Your task to perform on an android device: What's the weather going to be tomorrow? Image 0: 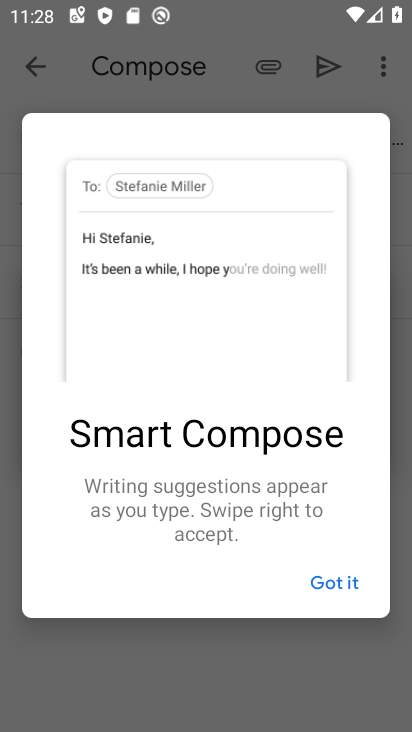
Step 0: press home button
Your task to perform on an android device: What's the weather going to be tomorrow? Image 1: 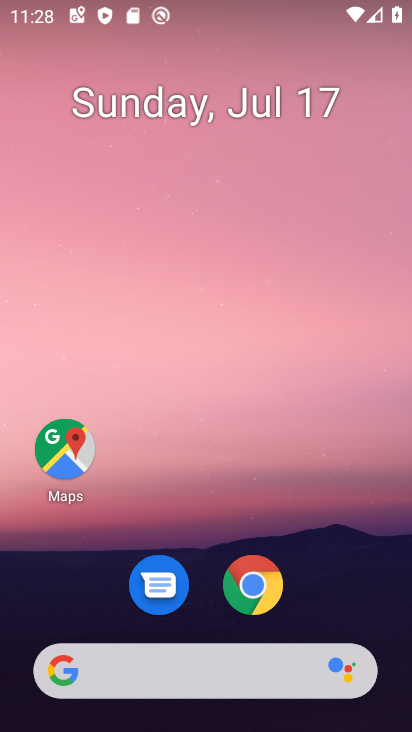
Step 1: click (237, 674)
Your task to perform on an android device: What's the weather going to be tomorrow? Image 2: 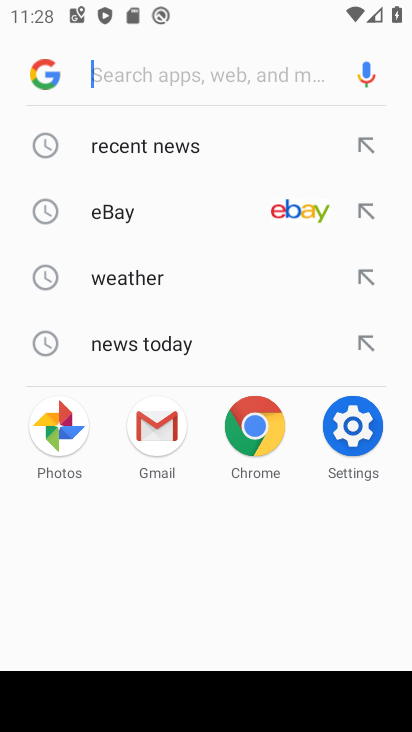
Step 2: click (133, 273)
Your task to perform on an android device: What's the weather going to be tomorrow? Image 3: 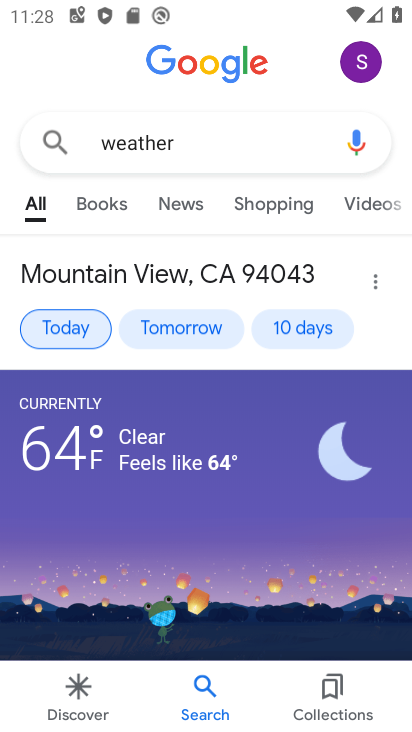
Step 3: click (171, 309)
Your task to perform on an android device: What's the weather going to be tomorrow? Image 4: 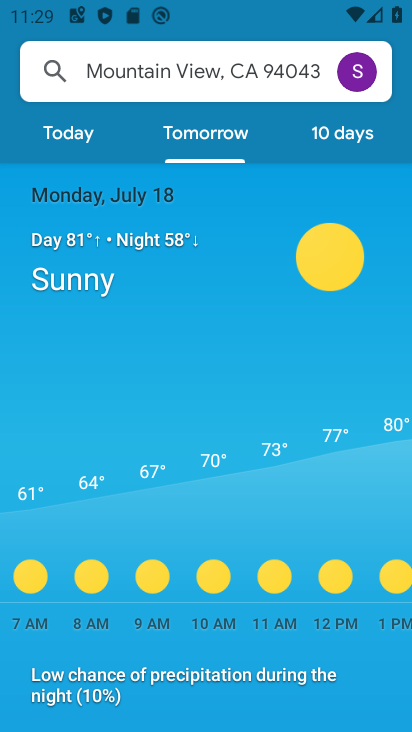
Step 4: drag from (204, 466) to (239, 108)
Your task to perform on an android device: What's the weather going to be tomorrow? Image 5: 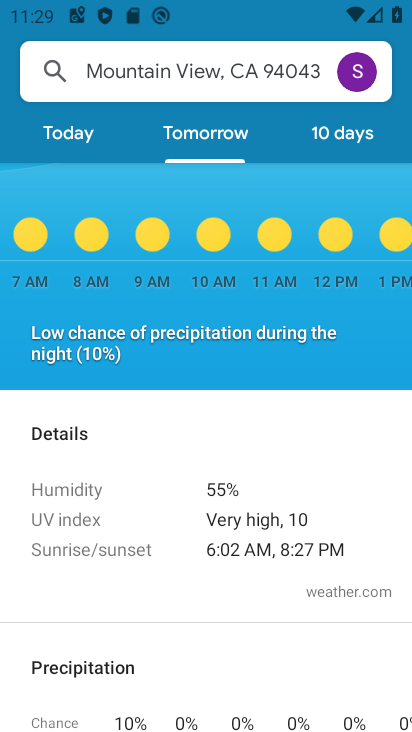
Step 5: drag from (216, 504) to (245, 154)
Your task to perform on an android device: What's the weather going to be tomorrow? Image 6: 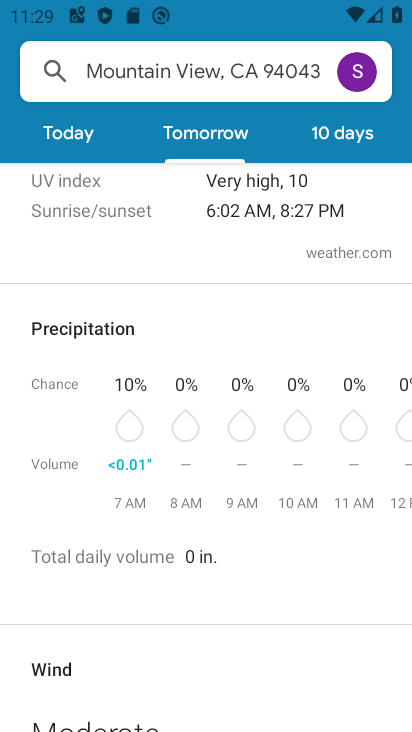
Step 6: drag from (309, 445) to (22, 405)
Your task to perform on an android device: What's the weather going to be tomorrow? Image 7: 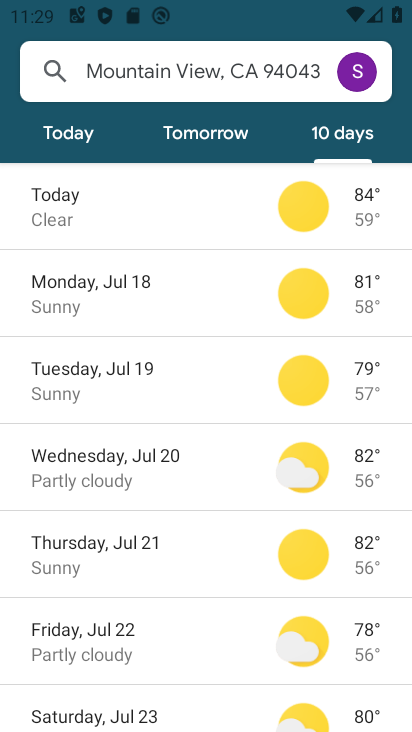
Step 7: drag from (108, 435) to (406, 591)
Your task to perform on an android device: What's the weather going to be tomorrow? Image 8: 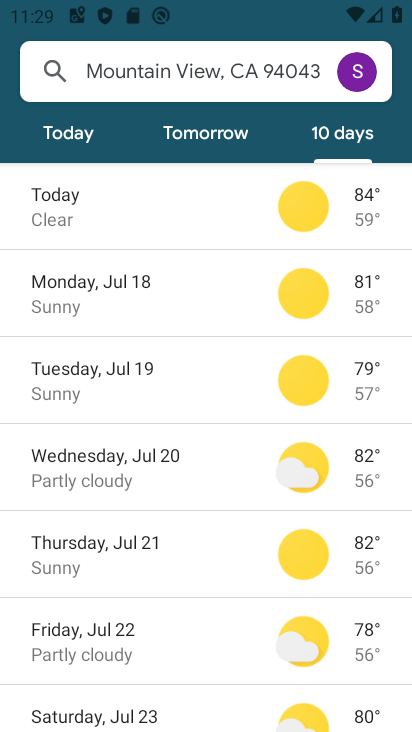
Step 8: drag from (88, 406) to (321, 477)
Your task to perform on an android device: What's the weather going to be tomorrow? Image 9: 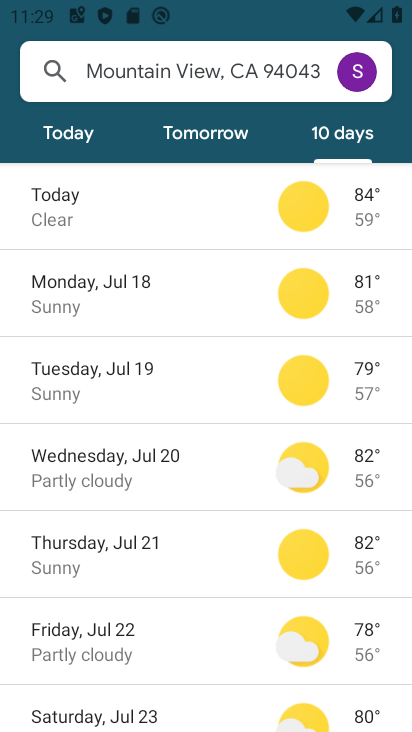
Step 9: click (238, 300)
Your task to perform on an android device: What's the weather going to be tomorrow? Image 10: 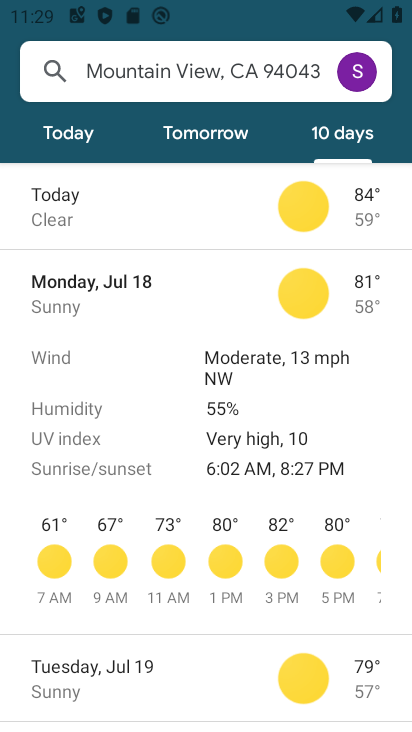
Step 10: task complete